Your task to perform on an android device: create a new album in the google photos Image 0: 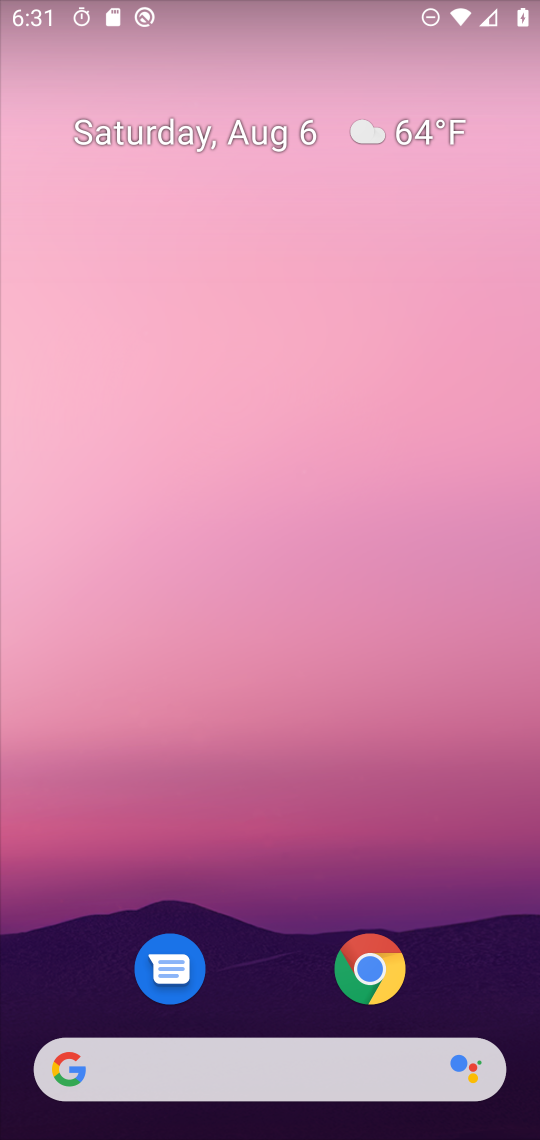
Step 0: press home button
Your task to perform on an android device: create a new album in the google photos Image 1: 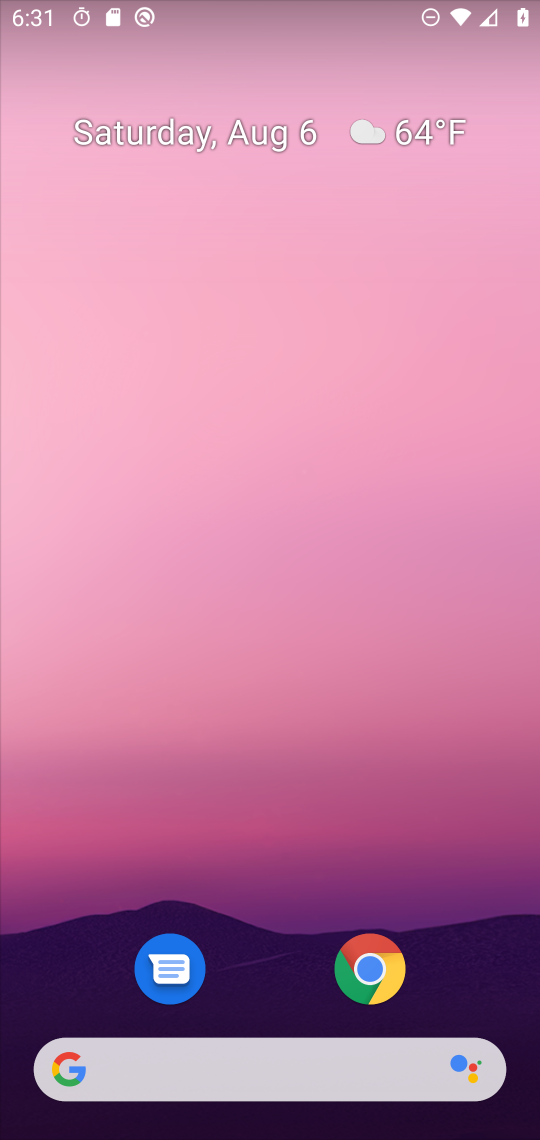
Step 1: press home button
Your task to perform on an android device: create a new album in the google photos Image 2: 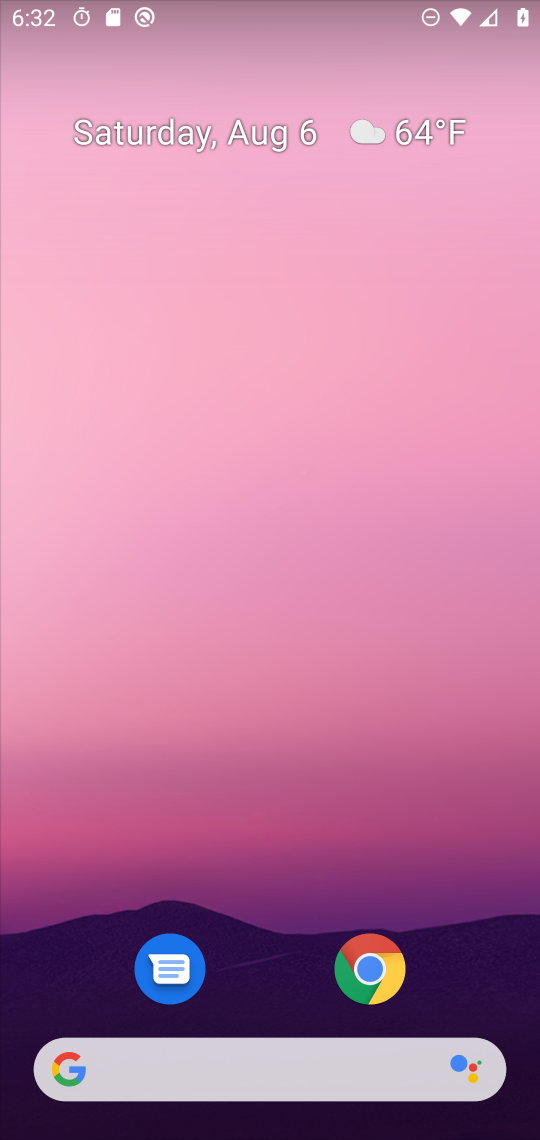
Step 2: drag from (248, 1024) to (428, 204)
Your task to perform on an android device: create a new album in the google photos Image 3: 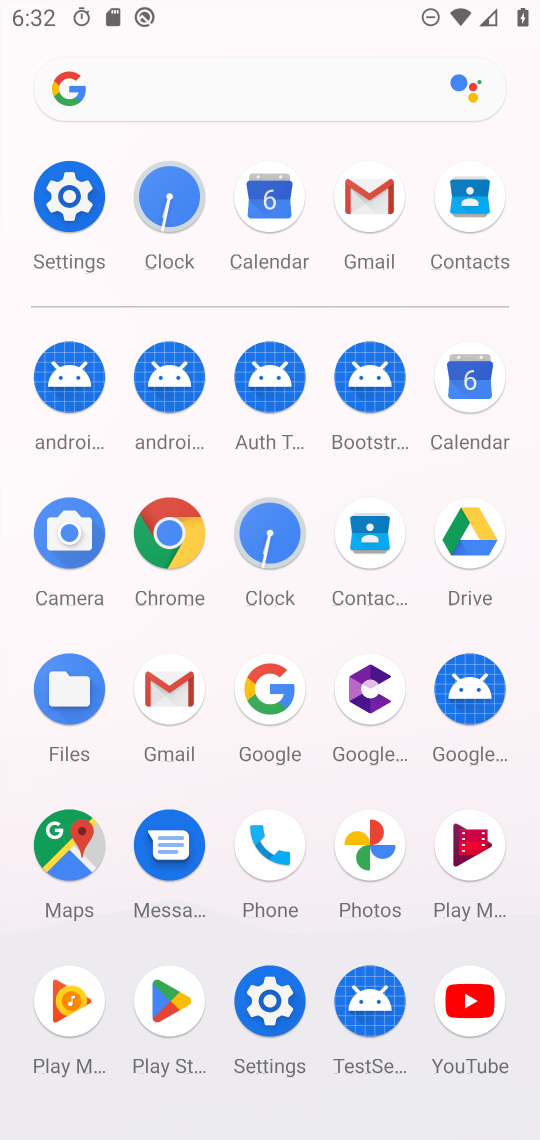
Step 3: click (357, 856)
Your task to perform on an android device: create a new album in the google photos Image 4: 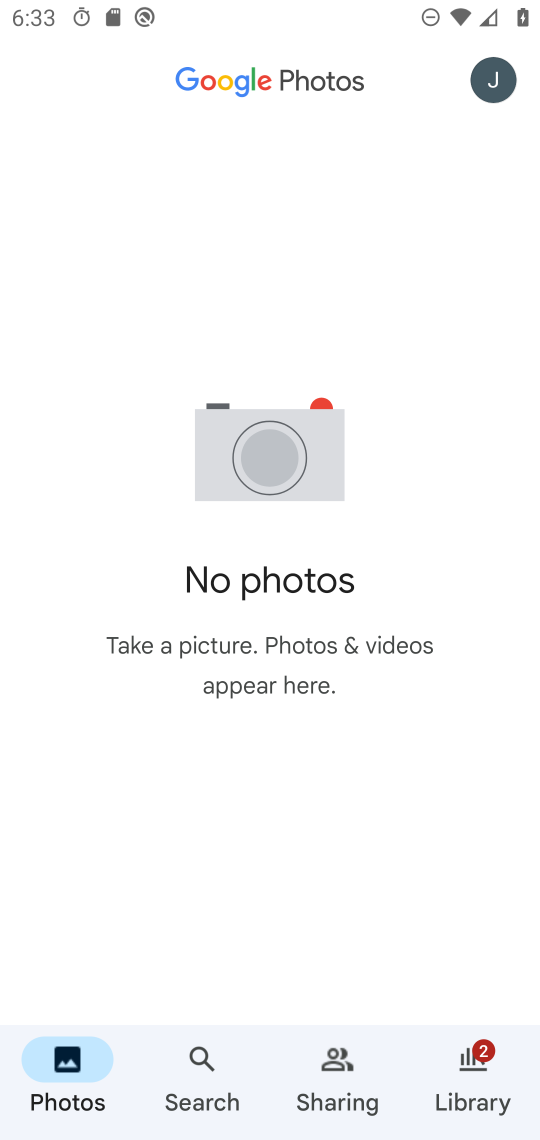
Step 4: task complete